Your task to perform on an android device: Go to Android settings Image 0: 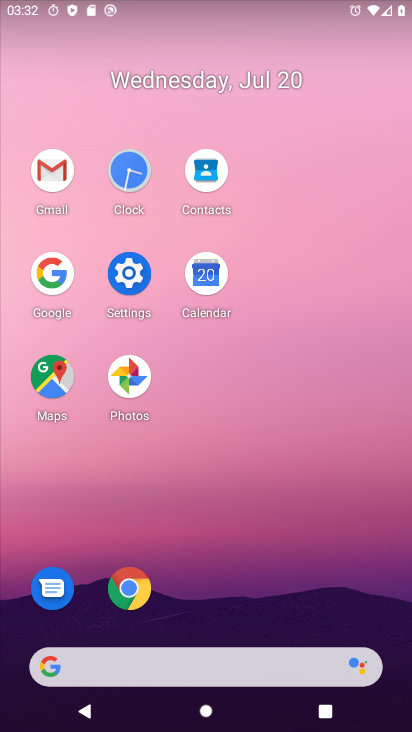
Step 0: click (126, 275)
Your task to perform on an android device: Go to Android settings Image 1: 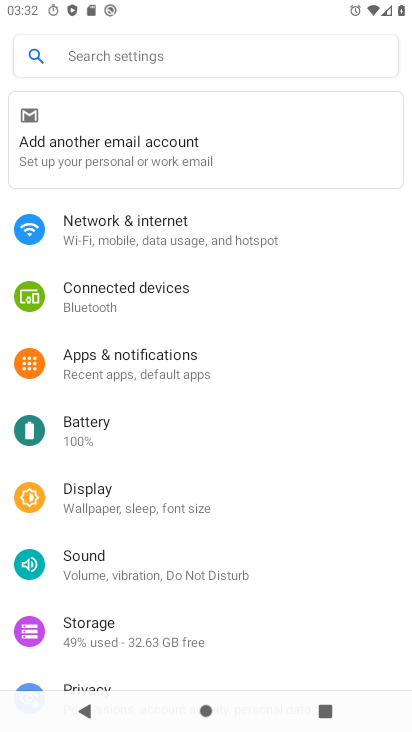
Step 1: task complete